Your task to perform on an android device: delete the emails in spam in the gmail app Image 0: 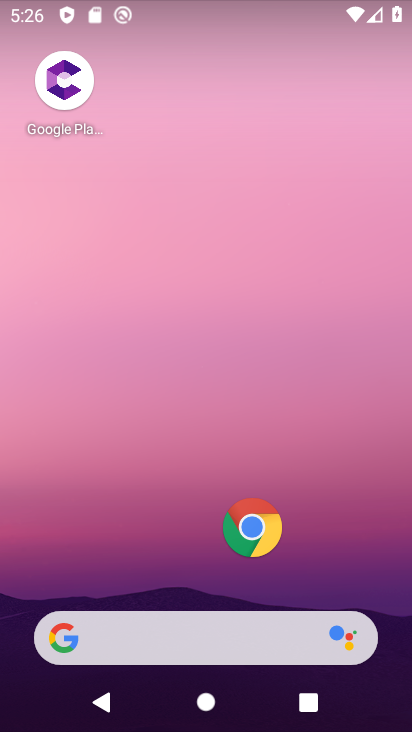
Step 0: drag from (165, 490) to (284, 36)
Your task to perform on an android device: delete the emails in spam in the gmail app Image 1: 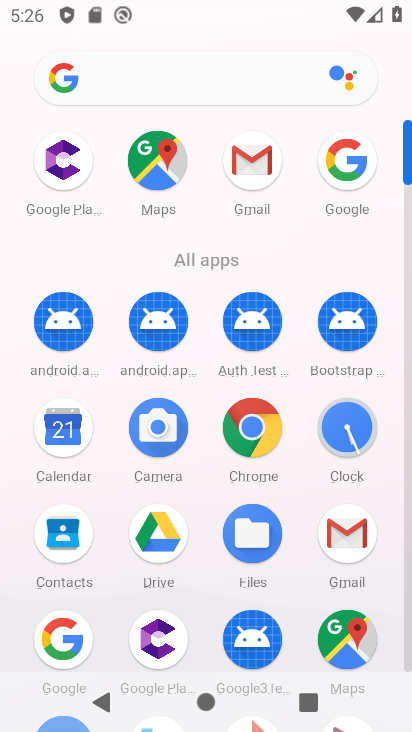
Step 1: click (247, 158)
Your task to perform on an android device: delete the emails in spam in the gmail app Image 2: 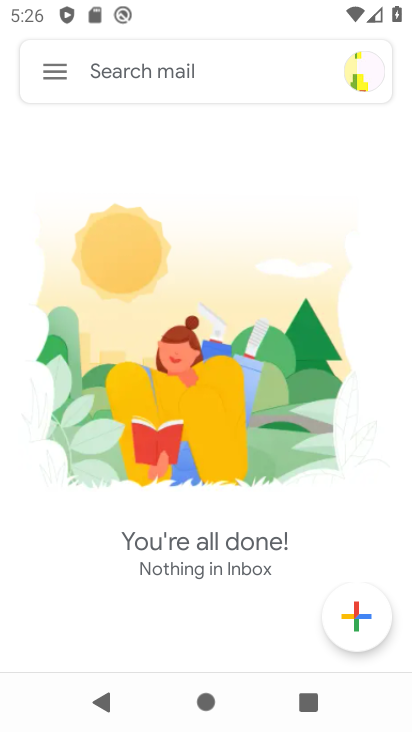
Step 2: click (48, 65)
Your task to perform on an android device: delete the emails in spam in the gmail app Image 3: 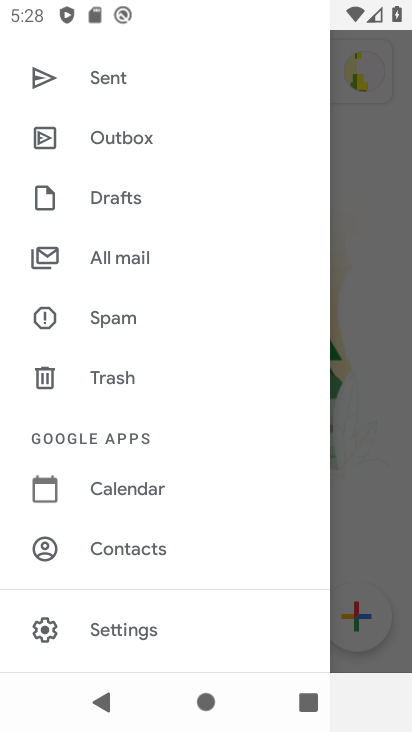
Step 3: click (141, 261)
Your task to perform on an android device: delete the emails in spam in the gmail app Image 4: 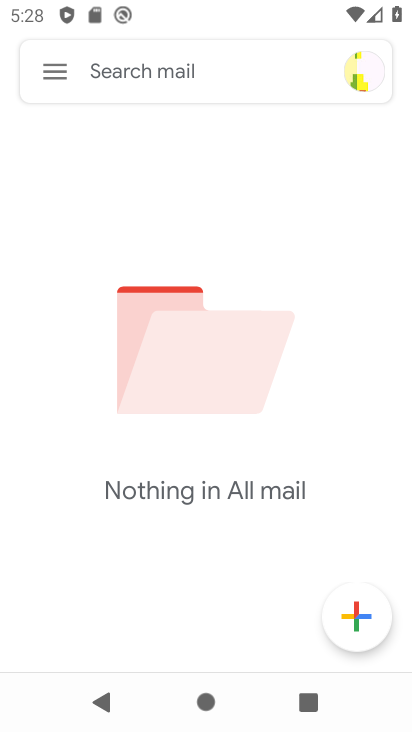
Step 4: click (49, 64)
Your task to perform on an android device: delete the emails in spam in the gmail app Image 5: 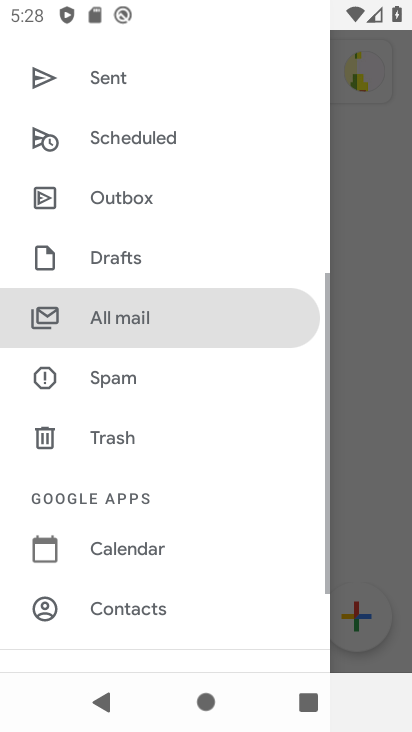
Step 5: click (135, 388)
Your task to perform on an android device: delete the emails in spam in the gmail app Image 6: 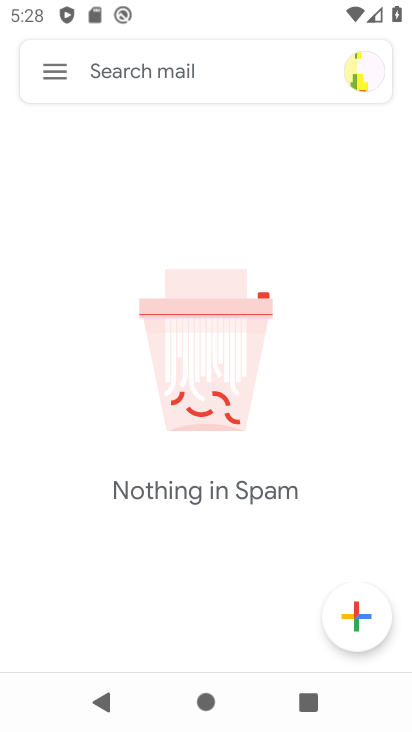
Step 6: task complete